Your task to perform on an android device: change the upload size in google photos Image 0: 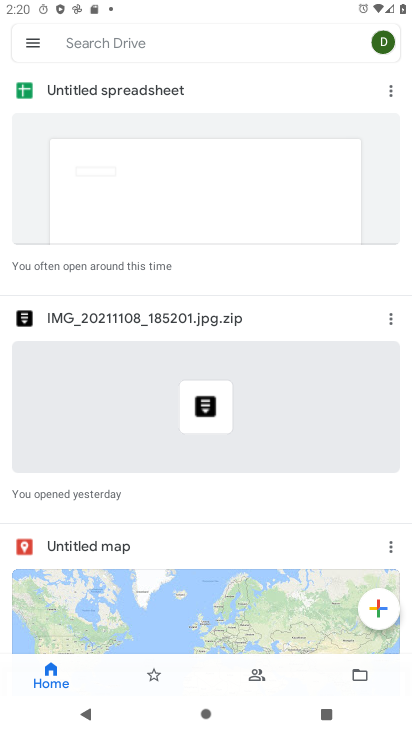
Step 0: press home button
Your task to perform on an android device: change the upload size in google photos Image 1: 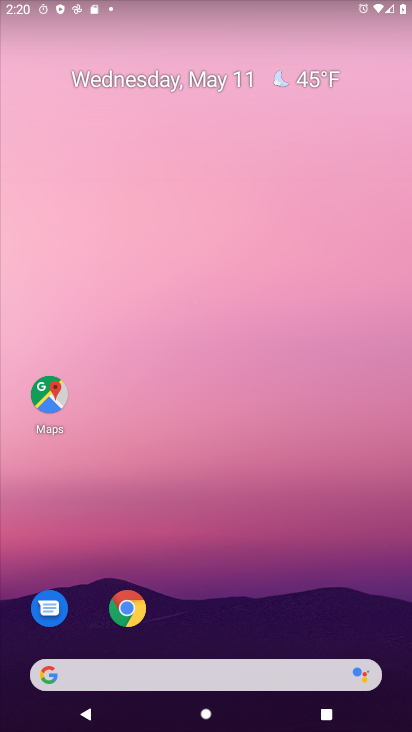
Step 1: drag from (221, 625) to (255, 50)
Your task to perform on an android device: change the upload size in google photos Image 2: 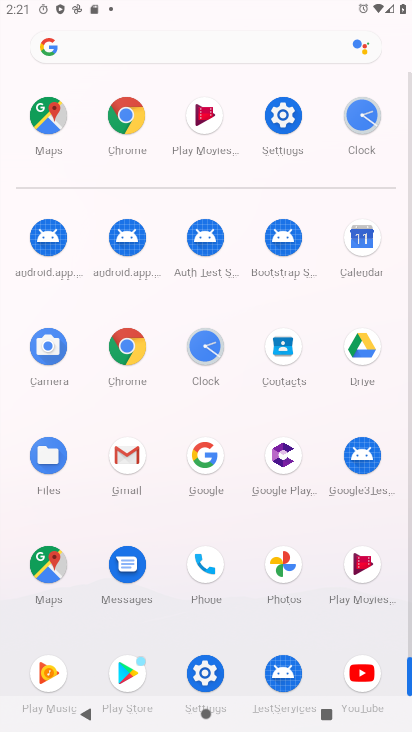
Step 2: click (289, 567)
Your task to perform on an android device: change the upload size in google photos Image 3: 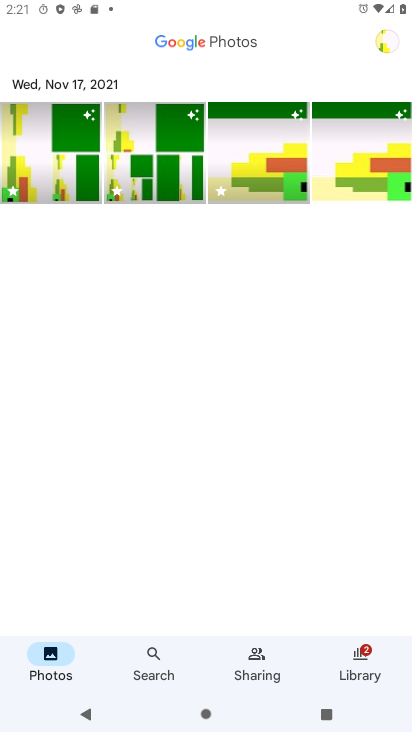
Step 3: click (386, 39)
Your task to perform on an android device: change the upload size in google photos Image 4: 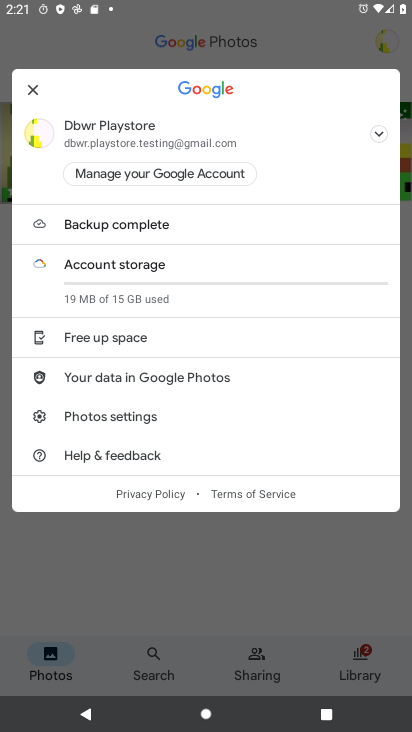
Step 4: click (123, 417)
Your task to perform on an android device: change the upload size in google photos Image 5: 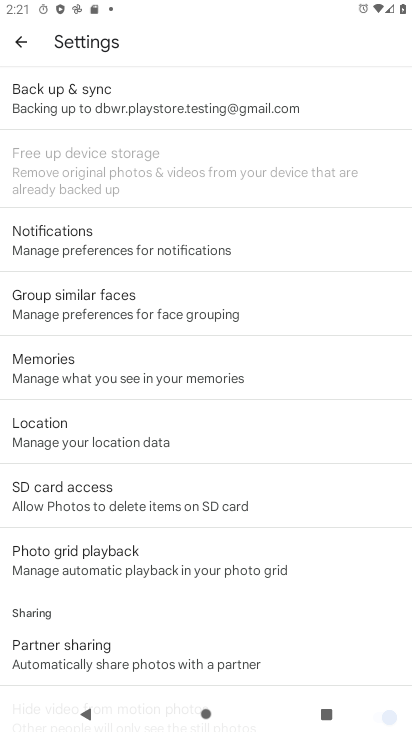
Step 5: click (122, 112)
Your task to perform on an android device: change the upload size in google photos Image 6: 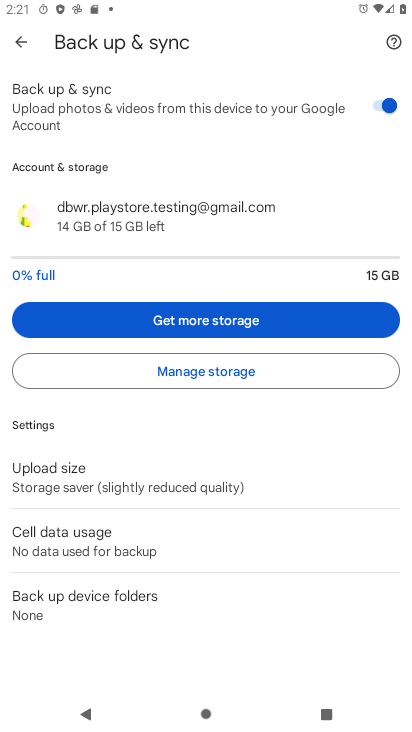
Step 6: click (133, 494)
Your task to perform on an android device: change the upload size in google photos Image 7: 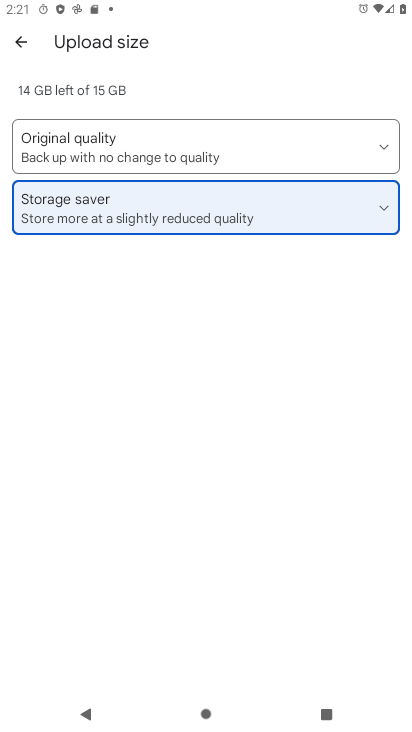
Step 7: click (96, 148)
Your task to perform on an android device: change the upload size in google photos Image 8: 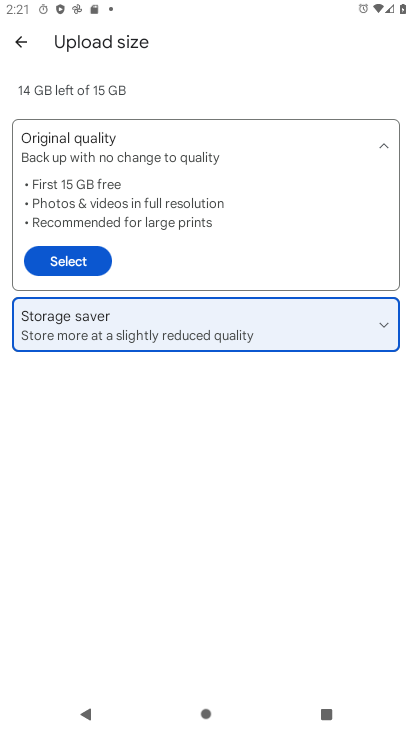
Step 8: click (96, 148)
Your task to perform on an android device: change the upload size in google photos Image 9: 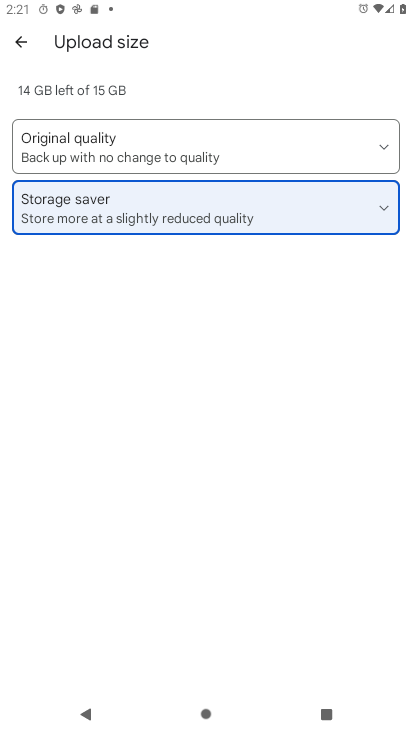
Step 9: click (113, 146)
Your task to perform on an android device: change the upload size in google photos Image 10: 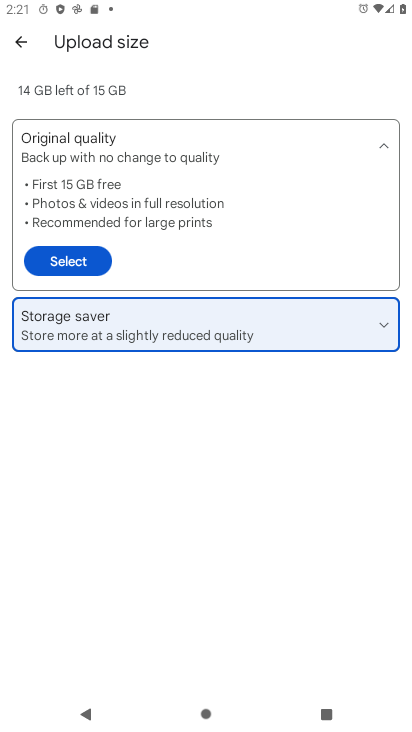
Step 10: click (59, 246)
Your task to perform on an android device: change the upload size in google photos Image 11: 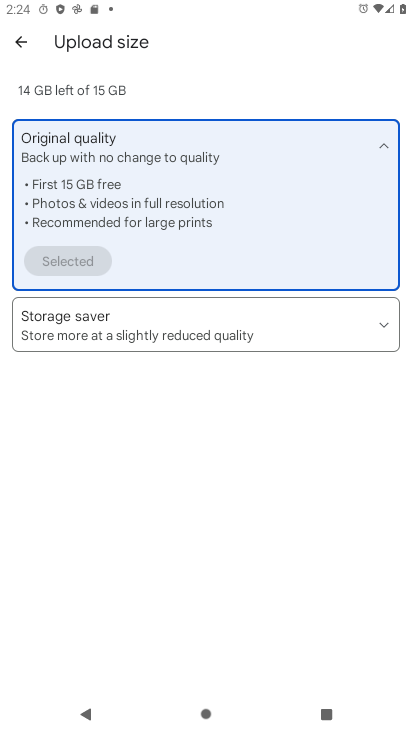
Step 11: task complete